Your task to perform on an android device: stop showing notifications on the lock screen Image 0: 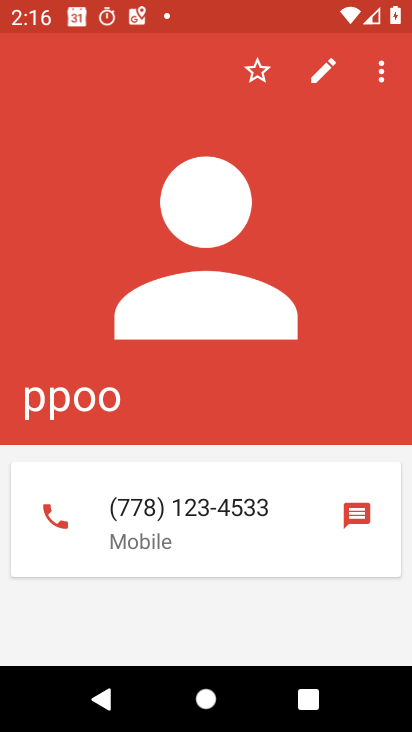
Step 0: press home button
Your task to perform on an android device: stop showing notifications on the lock screen Image 1: 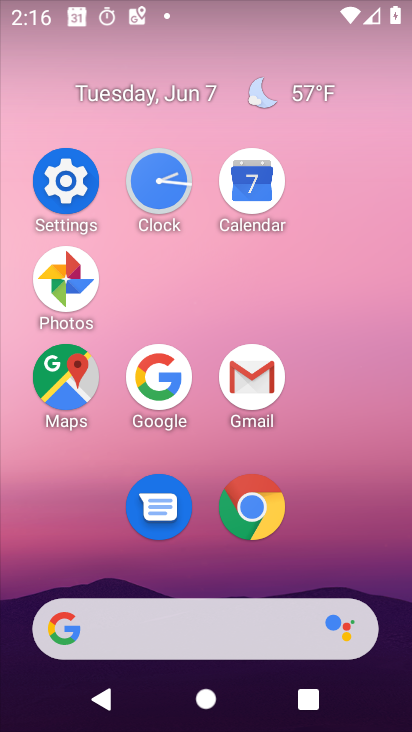
Step 1: click (70, 171)
Your task to perform on an android device: stop showing notifications on the lock screen Image 2: 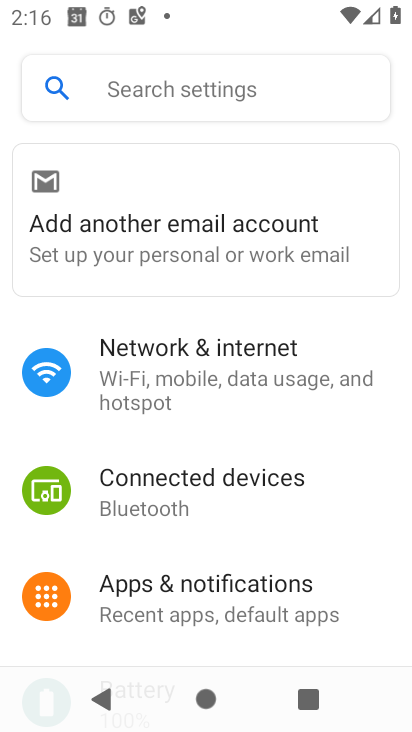
Step 2: drag from (279, 564) to (305, 156)
Your task to perform on an android device: stop showing notifications on the lock screen Image 3: 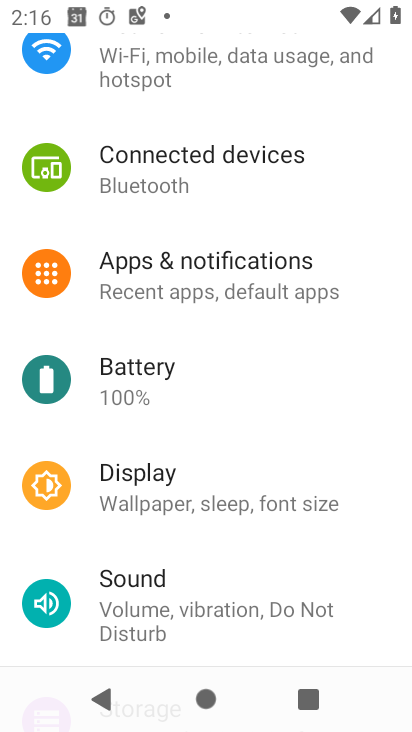
Step 3: drag from (252, 560) to (300, 79)
Your task to perform on an android device: stop showing notifications on the lock screen Image 4: 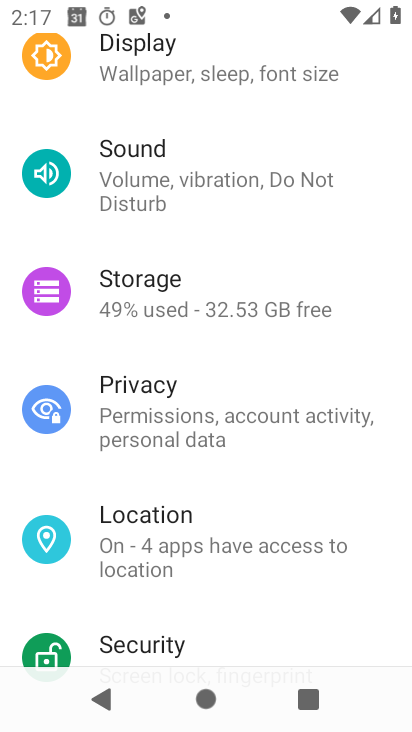
Step 4: drag from (232, 552) to (267, 209)
Your task to perform on an android device: stop showing notifications on the lock screen Image 5: 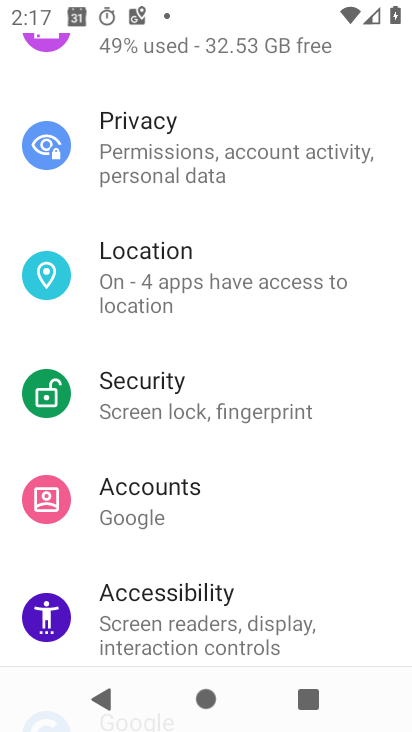
Step 5: drag from (297, 121) to (253, 730)
Your task to perform on an android device: stop showing notifications on the lock screen Image 6: 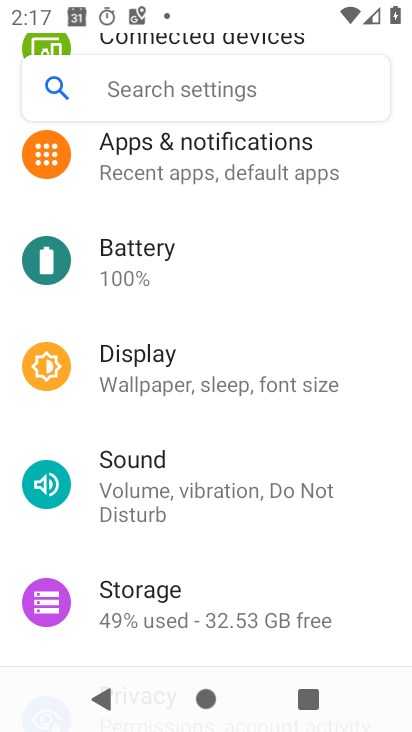
Step 6: drag from (253, 204) to (227, 565)
Your task to perform on an android device: stop showing notifications on the lock screen Image 7: 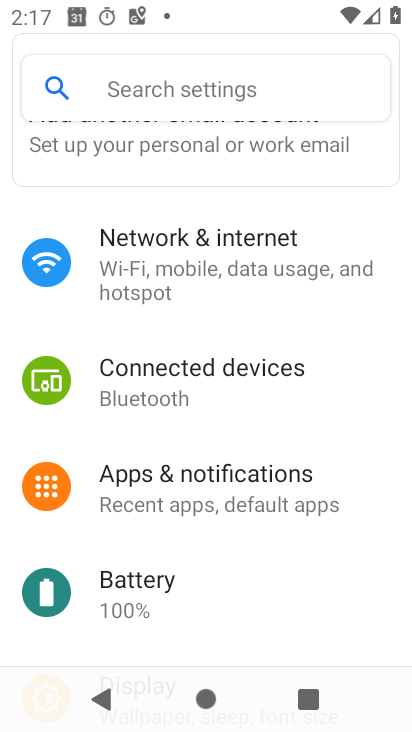
Step 7: click (243, 503)
Your task to perform on an android device: stop showing notifications on the lock screen Image 8: 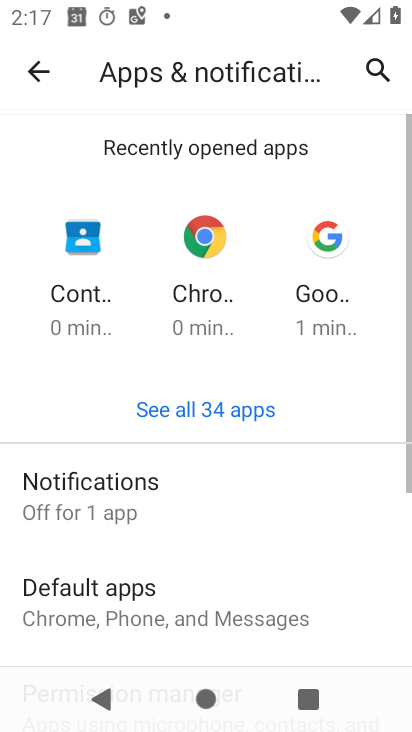
Step 8: click (218, 507)
Your task to perform on an android device: stop showing notifications on the lock screen Image 9: 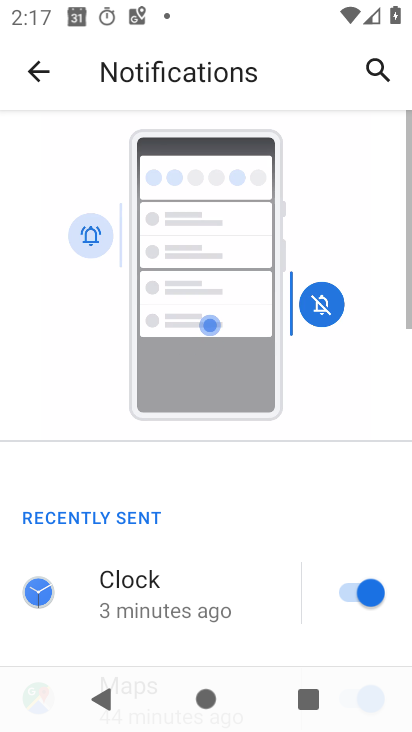
Step 9: drag from (235, 563) to (252, 192)
Your task to perform on an android device: stop showing notifications on the lock screen Image 10: 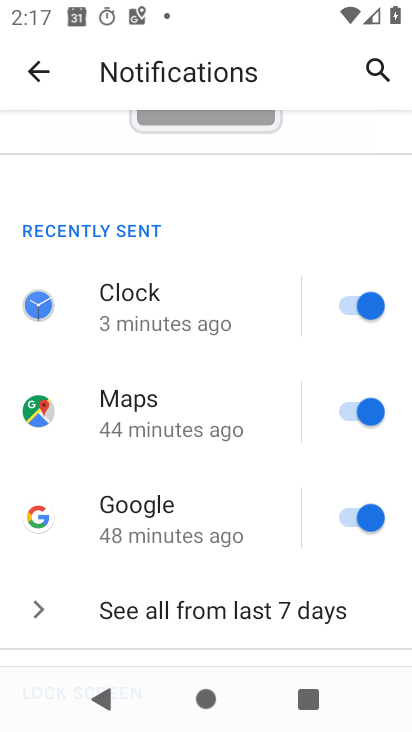
Step 10: drag from (264, 455) to (277, 101)
Your task to perform on an android device: stop showing notifications on the lock screen Image 11: 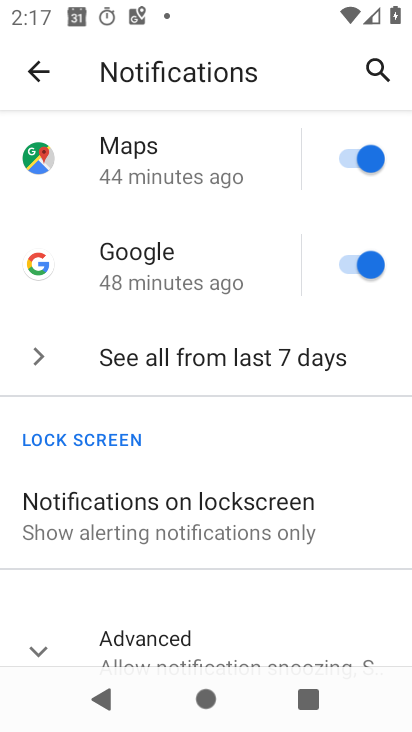
Step 11: drag from (231, 621) to (250, 249)
Your task to perform on an android device: stop showing notifications on the lock screen Image 12: 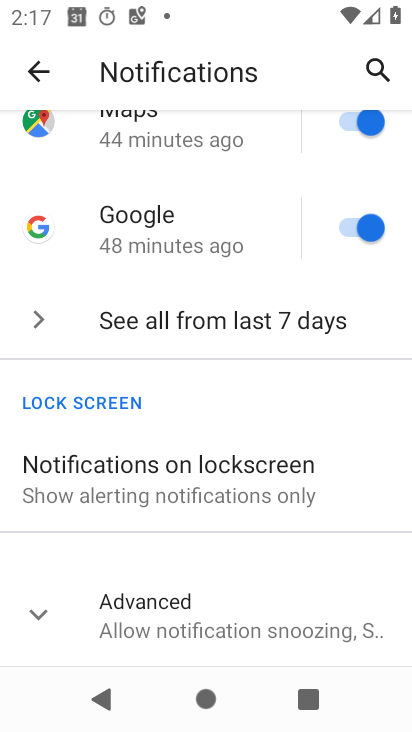
Step 12: click (210, 476)
Your task to perform on an android device: stop showing notifications on the lock screen Image 13: 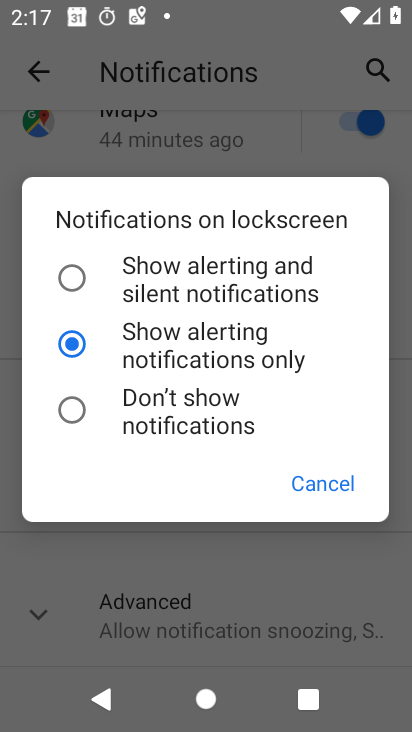
Step 13: click (155, 389)
Your task to perform on an android device: stop showing notifications on the lock screen Image 14: 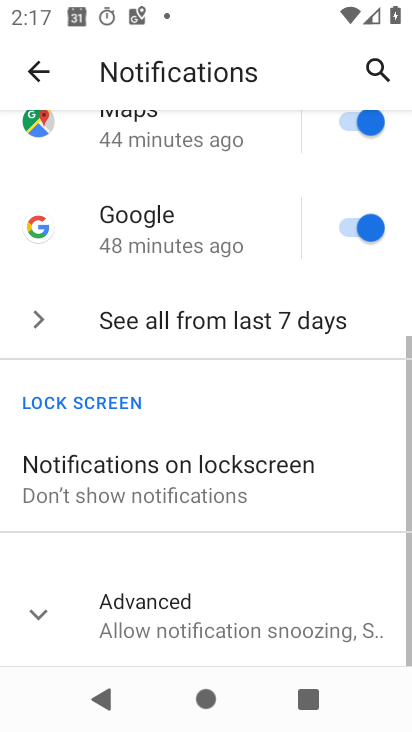
Step 14: task complete